Your task to perform on an android device: turn on the 24-hour format for clock Image 0: 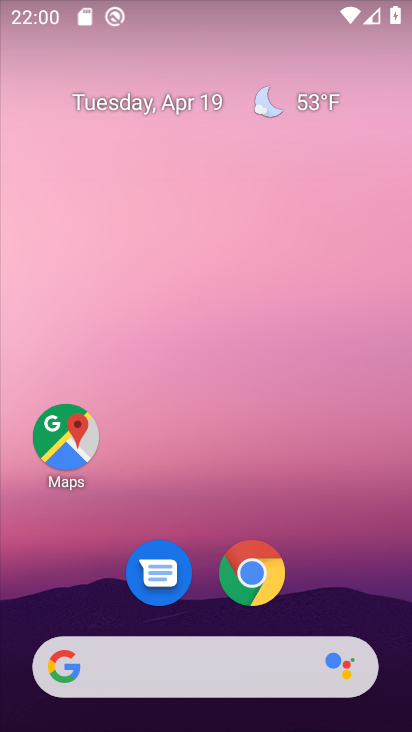
Step 0: drag from (210, 302) to (210, 113)
Your task to perform on an android device: turn on the 24-hour format for clock Image 1: 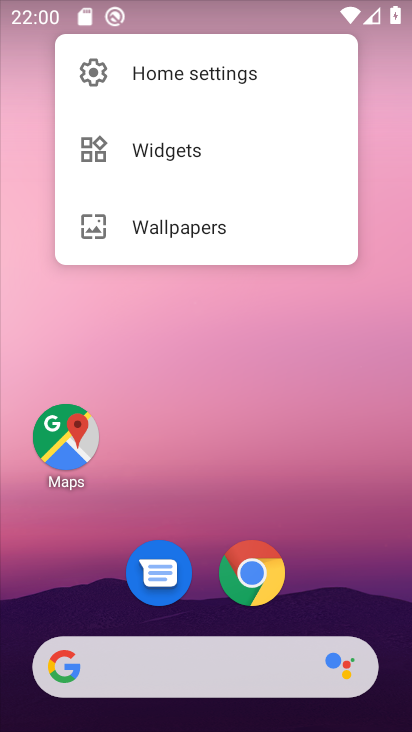
Step 1: click (218, 453)
Your task to perform on an android device: turn on the 24-hour format for clock Image 2: 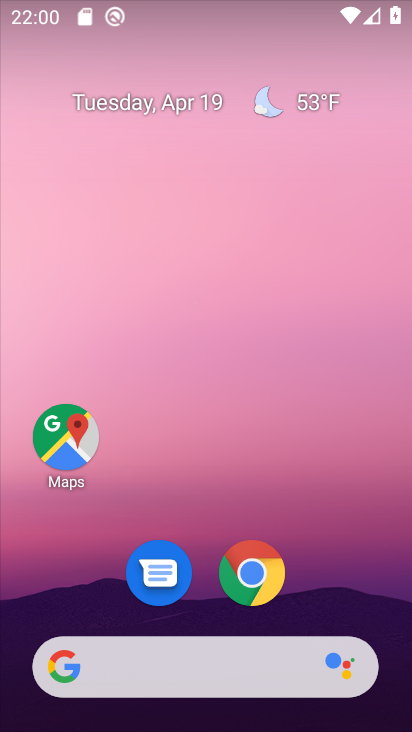
Step 2: drag from (203, 606) to (233, 158)
Your task to perform on an android device: turn on the 24-hour format for clock Image 3: 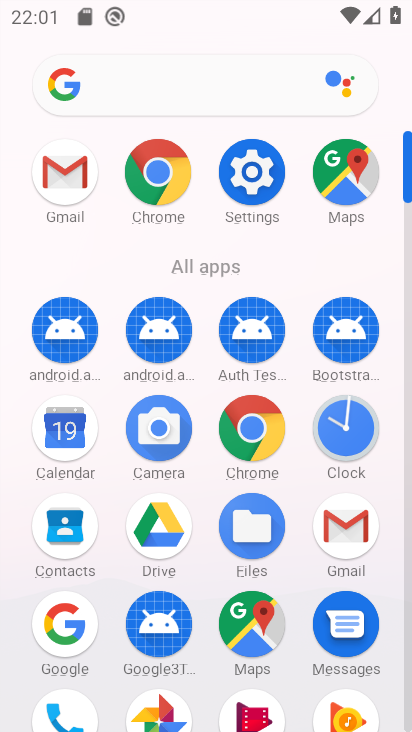
Step 3: click (344, 416)
Your task to perform on an android device: turn on the 24-hour format for clock Image 4: 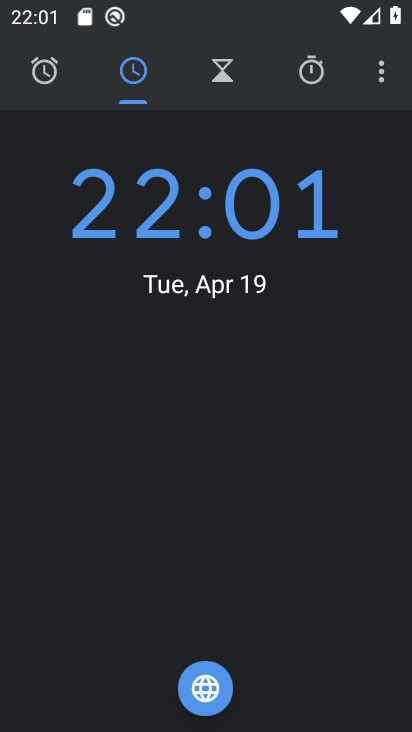
Step 4: click (376, 69)
Your task to perform on an android device: turn on the 24-hour format for clock Image 5: 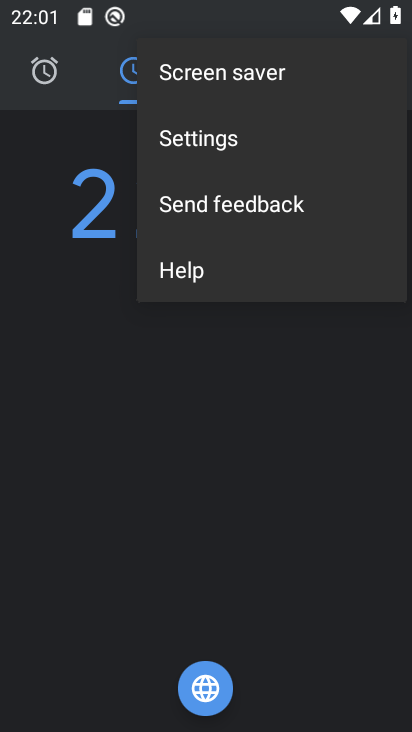
Step 5: click (251, 134)
Your task to perform on an android device: turn on the 24-hour format for clock Image 6: 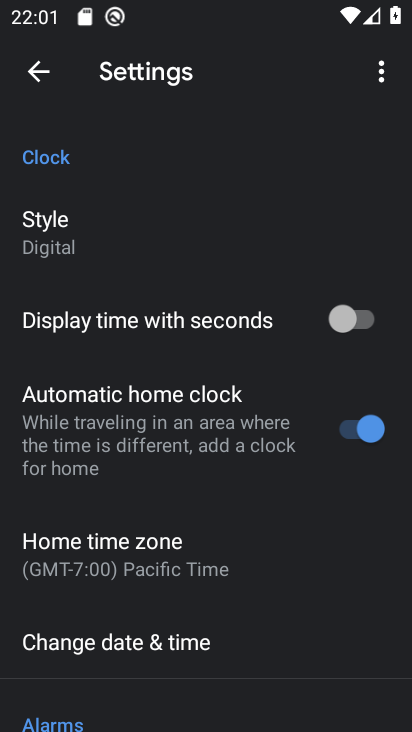
Step 6: click (215, 632)
Your task to perform on an android device: turn on the 24-hour format for clock Image 7: 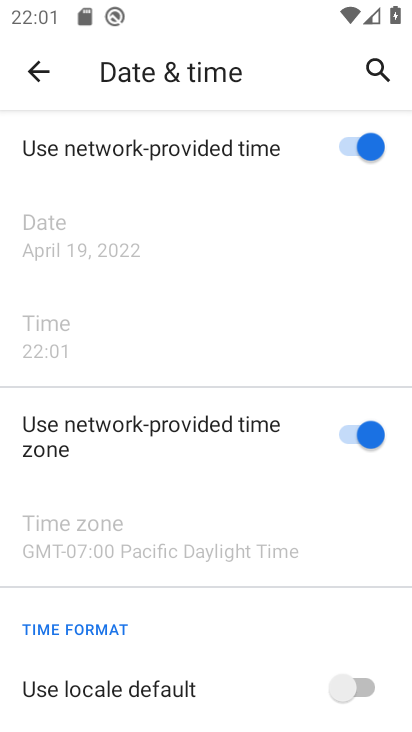
Step 7: task complete